Your task to perform on an android device: What is the news today? Image 0: 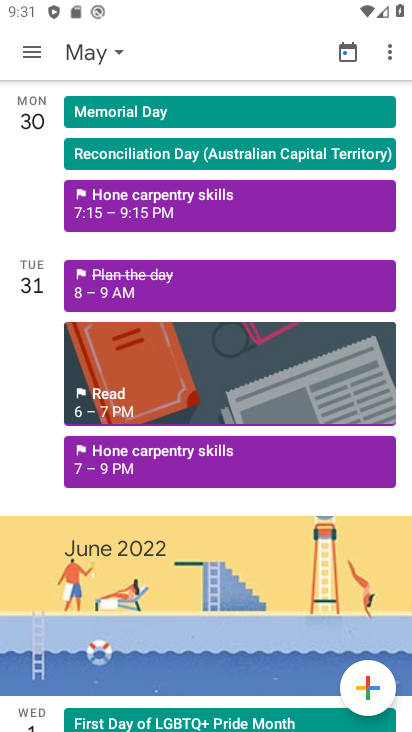
Step 0: press home button
Your task to perform on an android device: What is the news today? Image 1: 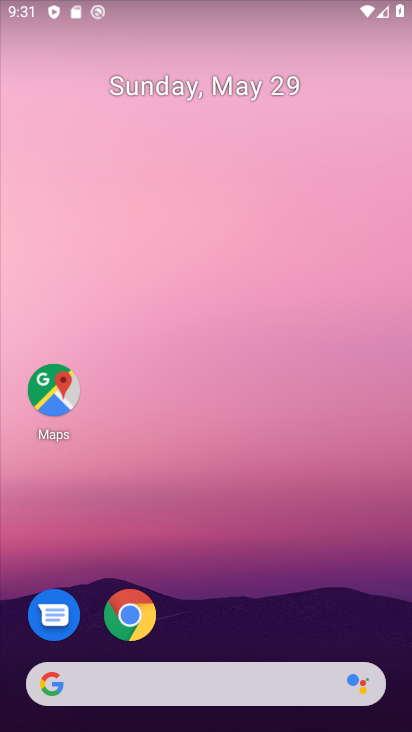
Step 1: click (220, 678)
Your task to perform on an android device: What is the news today? Image 2: 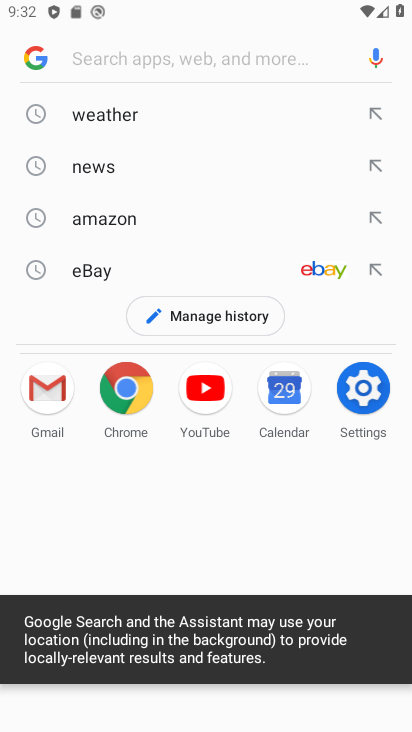
Step 2: click (127, 174)
Your task to perform on an android device: What is the news today? Image 3: 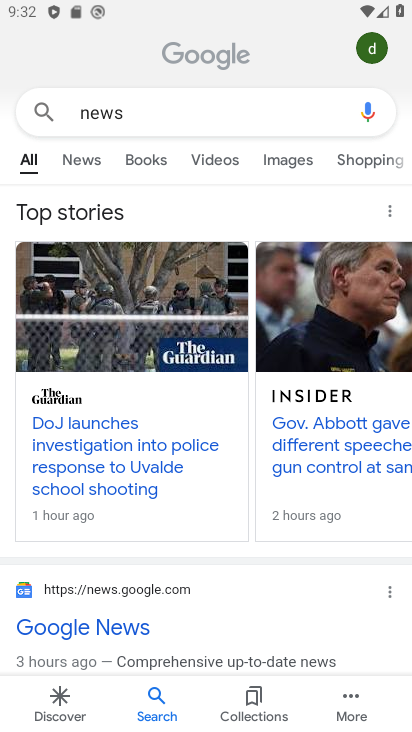
Step 3: click (89, 170)
Your task to perform on an android device: What is the news today? Image 4: 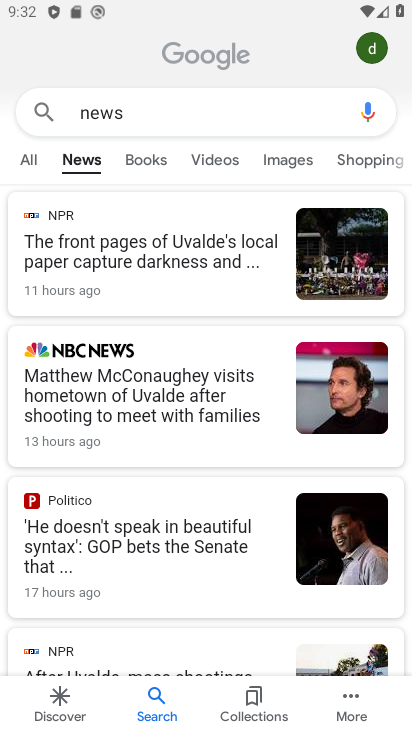
Step 4: task complete